Your task to perform on an android device: Add razer huntsman to the cart on amazon.com, then select checkout. Image 0: 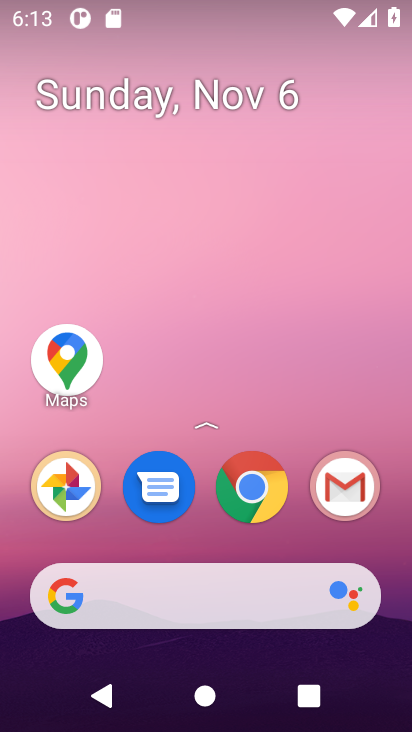
Step 0: click (235, 501)
Your task to perform on an android device: Add razer huntsman to the cart on amazon.com, then select checkout. Image 1: 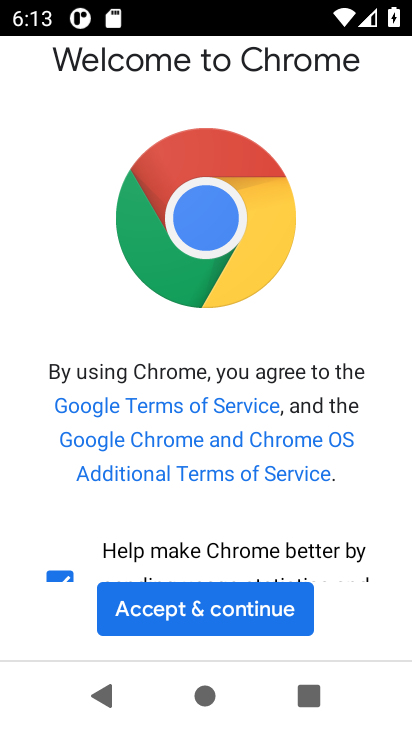
Step 1: click (182, 589)
Your task to perform on an android device: Add razer huntsman to the cart on amazon.com, then select checkout. Image 2: 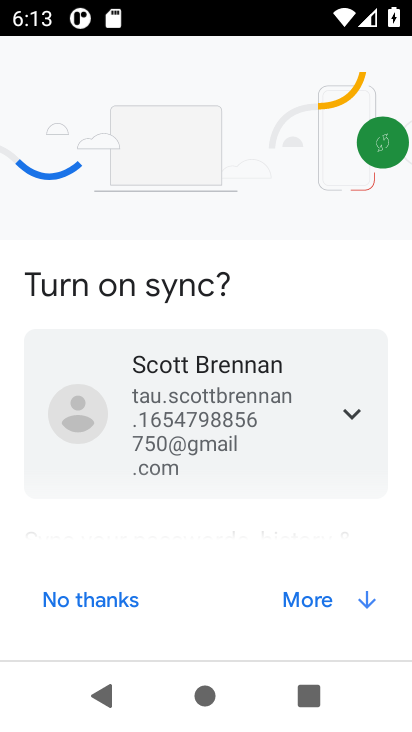
Step 2: click (338, 604)
Your task to perform on an android device: Add razer huntsman to the cart on amazon.com, then select checkout. Image 3: 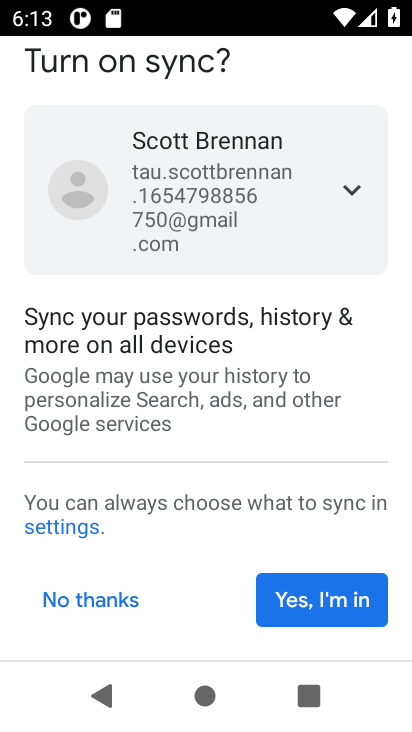
Step 3: click (338, 604)
Your task to perform on an android device: Add razer huntsman to the cart on amazon.com, then select checkout. Image 4: 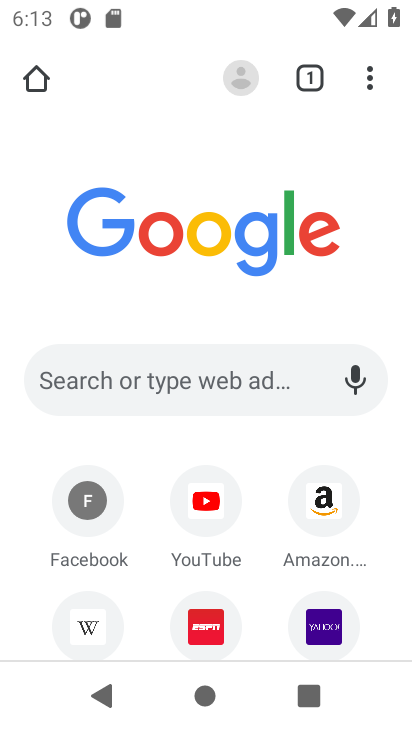
Step 4: click (189, 394)
Your task to perform on an android device: Add razer huntsman to the cart on amazon.com, then select checkout. Image 5: 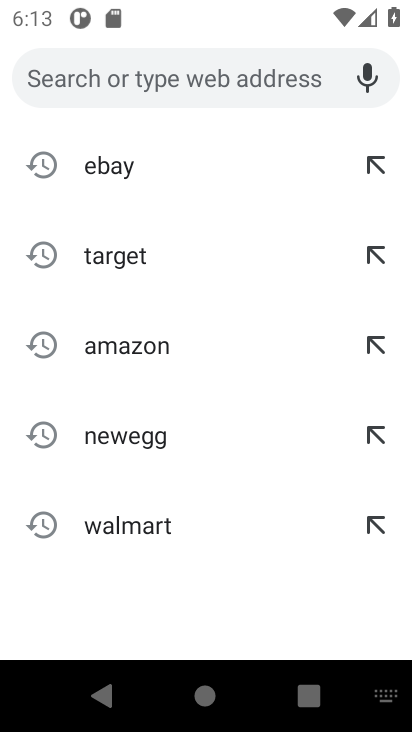
Step 5: press back button
Your task to perform on an android device: Add razer huntsman to the cart on amazon.com, then select checkout. Image 6: 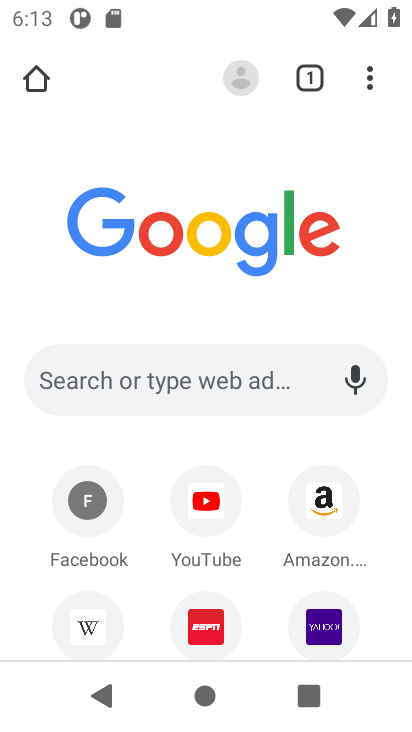
Step 6: press back button
Your task to perform on an android device: Add razer huntsman to the cart on amazon.com, then select checkout. Image 7: 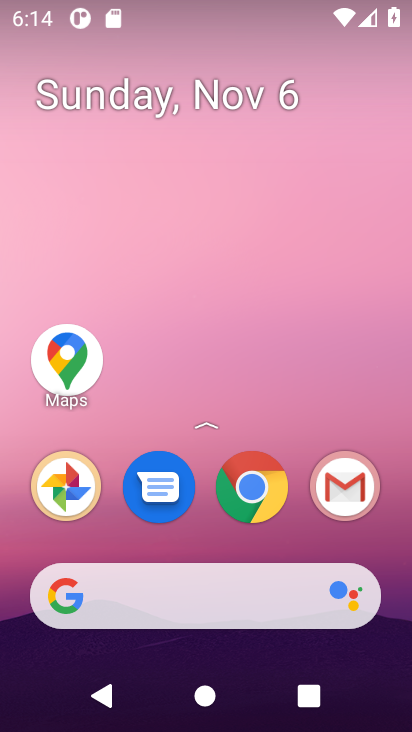
Step 7: click (276, 489)
Your task to perform on an android device: Add razer huntsman to the cart on amazon.com, then select checkout. Image 8: 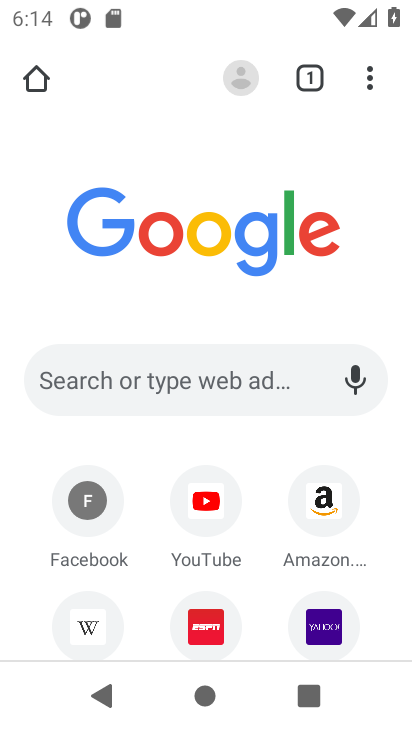
Step 8: click (318, 531)
Your task to perform on an android device: Add razer huntsman to the cart on amazon.com, then select checkout. Image 9: 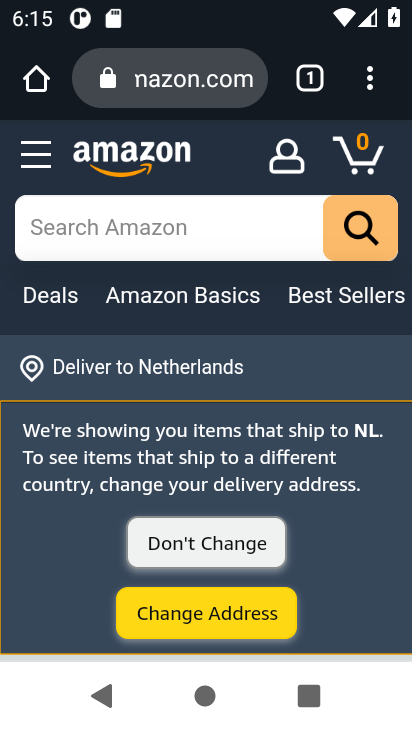
Step 9: click (69, 205)
Your task to perform on an android device: Add razer huntsman to the cart on amazon.com, then select checkout. Image 10: 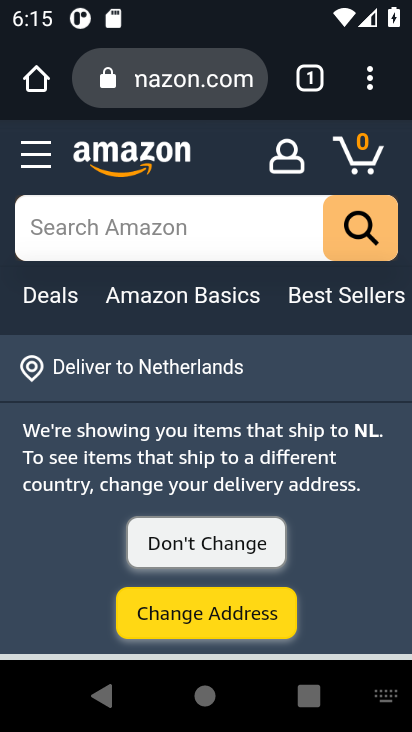
Step 10: type "razer huntsman"
Your task to perform on an android device: Add razer huntsman to the cart on amazon.com, then select checkout. Image 11: 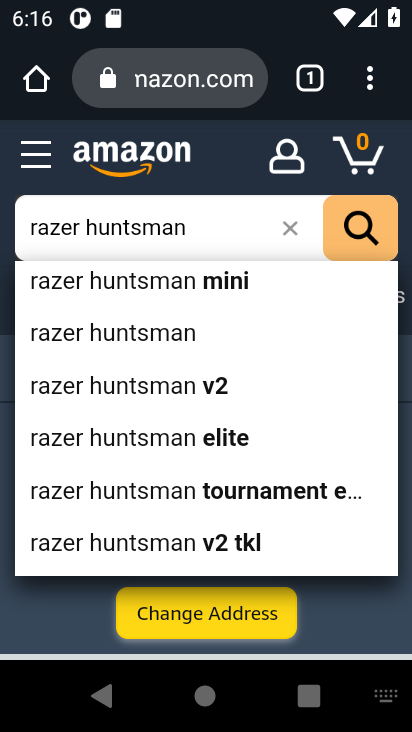
Step 11: click (350, 230)
Your task to perform on an android device: Add razer huntsman to the cart on amazon.com, then select checkout. Image 12: 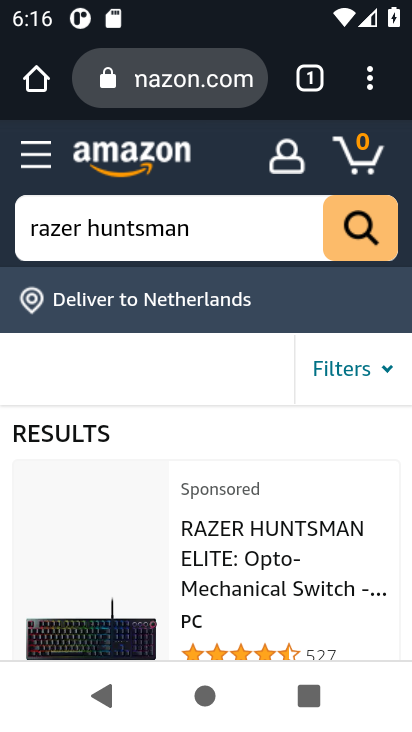
Step 12: click (261, 527)
Your task to perform on an android device: Add razer huntsman to the cart on amazon.com, then select checkout. Image 13: 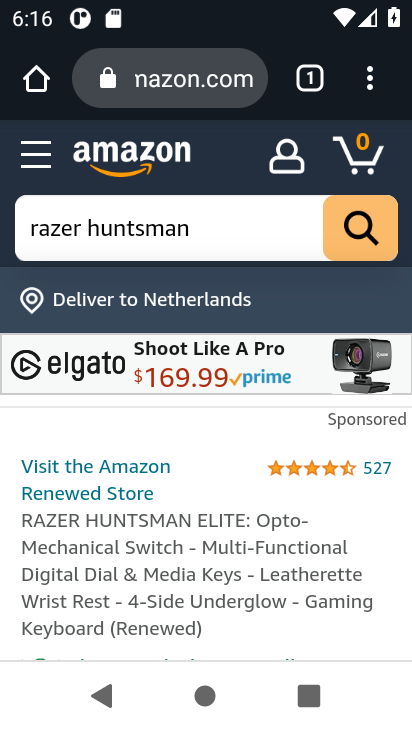
Step 13: drag from (160, 652) to (206, 135)
Your task to perform on an android device: Add razer huntsman to the cart on amazon.com, then select checkout. Image 14: 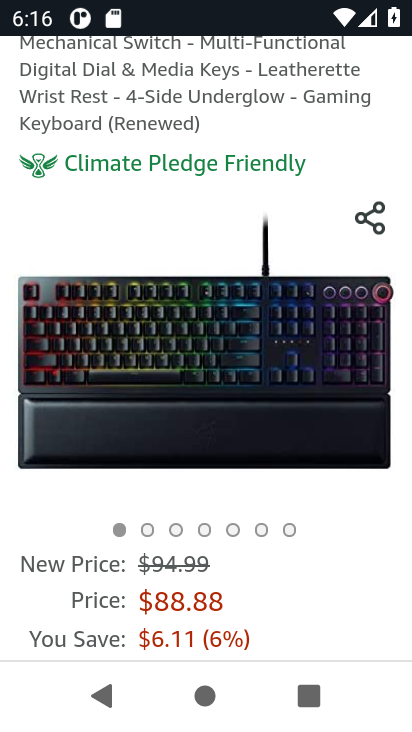
Step 14: drag from (219, 585) to (252, 32)
Your task to perform on an android device: Add razer huntsman to the cart on amazon.com, then select checkout. Image 15: 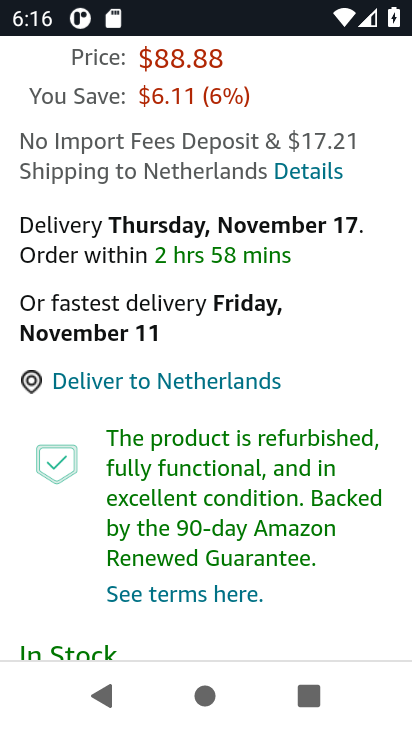
Step 15: drag from (223, 641) to (273, 205)
Your task to perform on an android device: Add razer huntsman to the cart on amazon.com, then select checkout. Image 16: 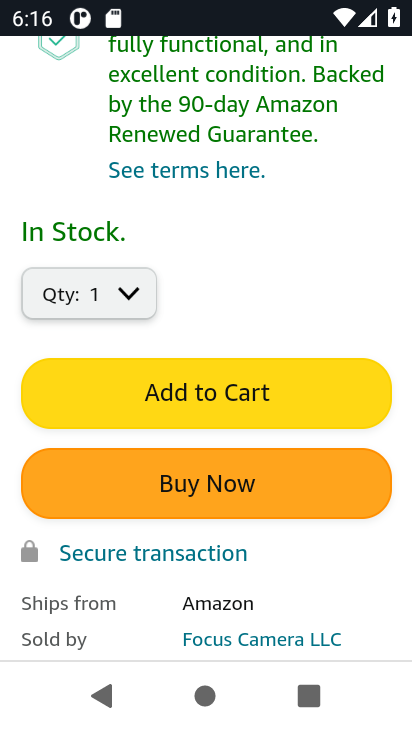
Step 16: click (212, 367)
Your task to perform on an android device: Add razer huntsman to the cart on amazon.com, then select checkout. Image 17: 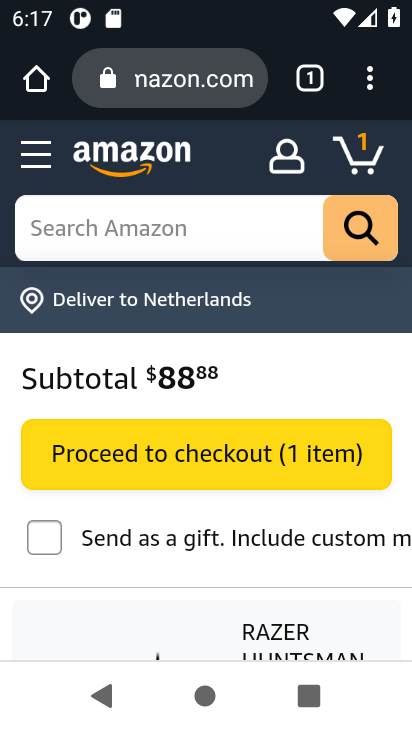
Step 17: click (288, 449)
Your task to perform on an android device: Add razer huntsman to the cart on amazon.com, then select checkout. Image 18: 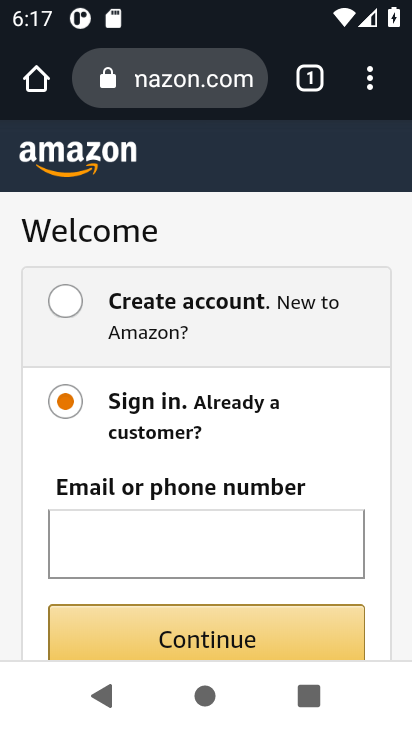
Step 18: task complete